Your task to perform on an android device: Open internet settings Image 0: 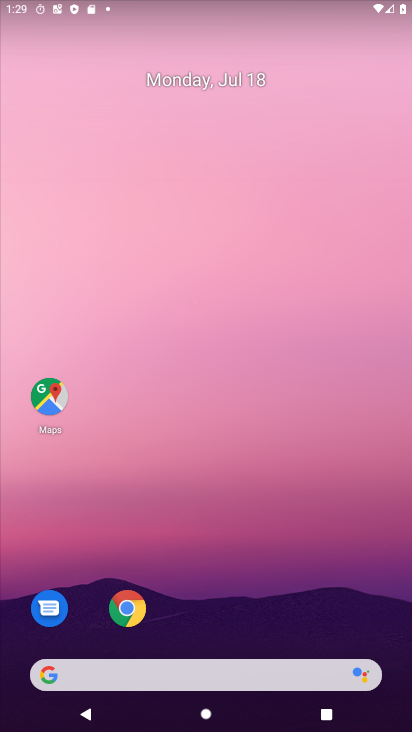
Step 0: drag from (230, 726) to (215, 133)
Your task to perform on an android device: Open internet settings Image 1: 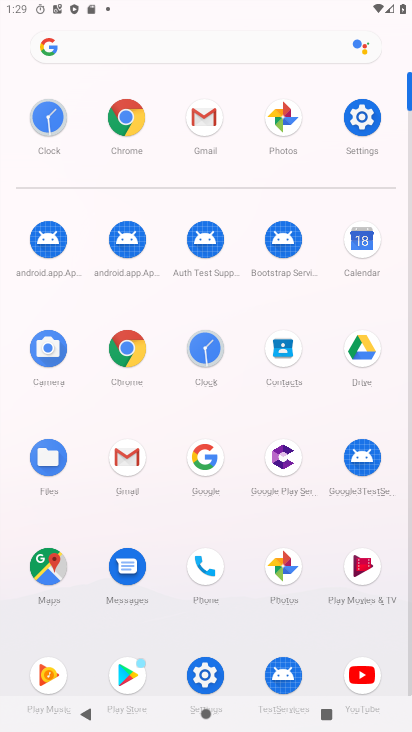
Step 1: click (359, 115)
Your task to perform on an android device: Open internet settings Image 2: 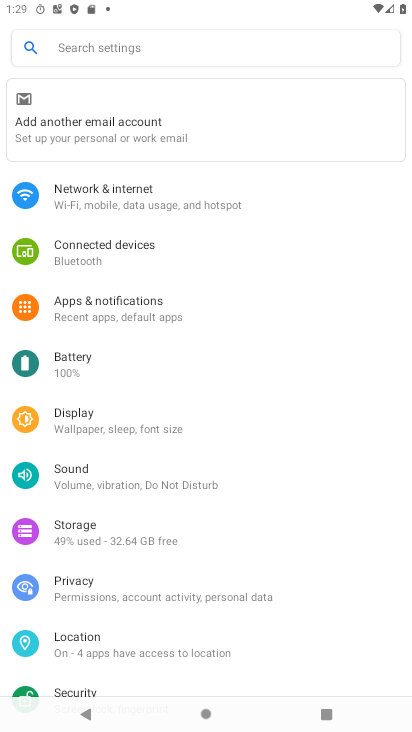
Step 2: click (128, 194)
Your task to perform on an android device: Open internet settings Image 3: 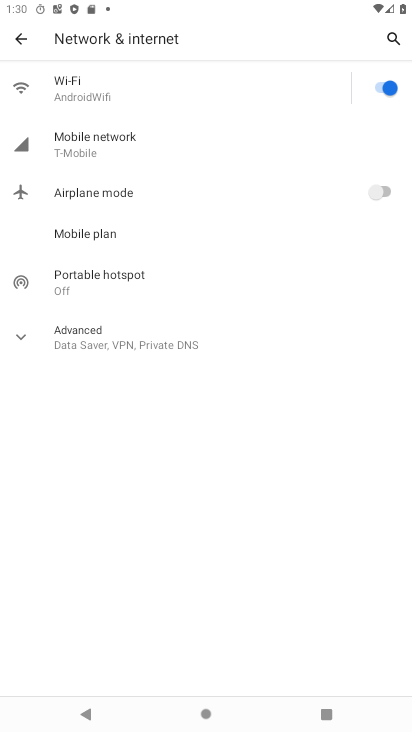
Step 3: task complete